Your task to perform on an android device: refresh tabs in the chrome app Image 0: 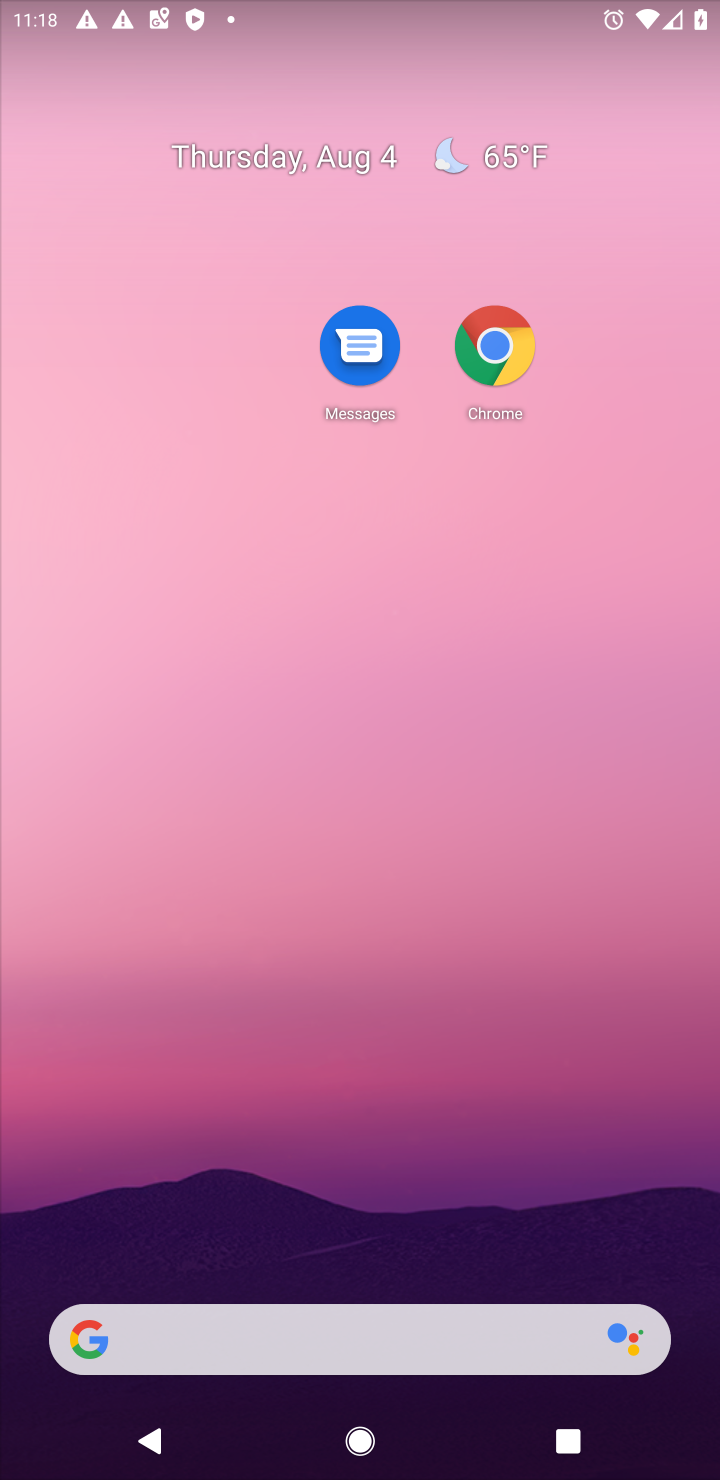
Step 0: drag from (294, 893) to (311, 265)
Your task to perform on an android device: refresh tabs in the chrome app Image 1: 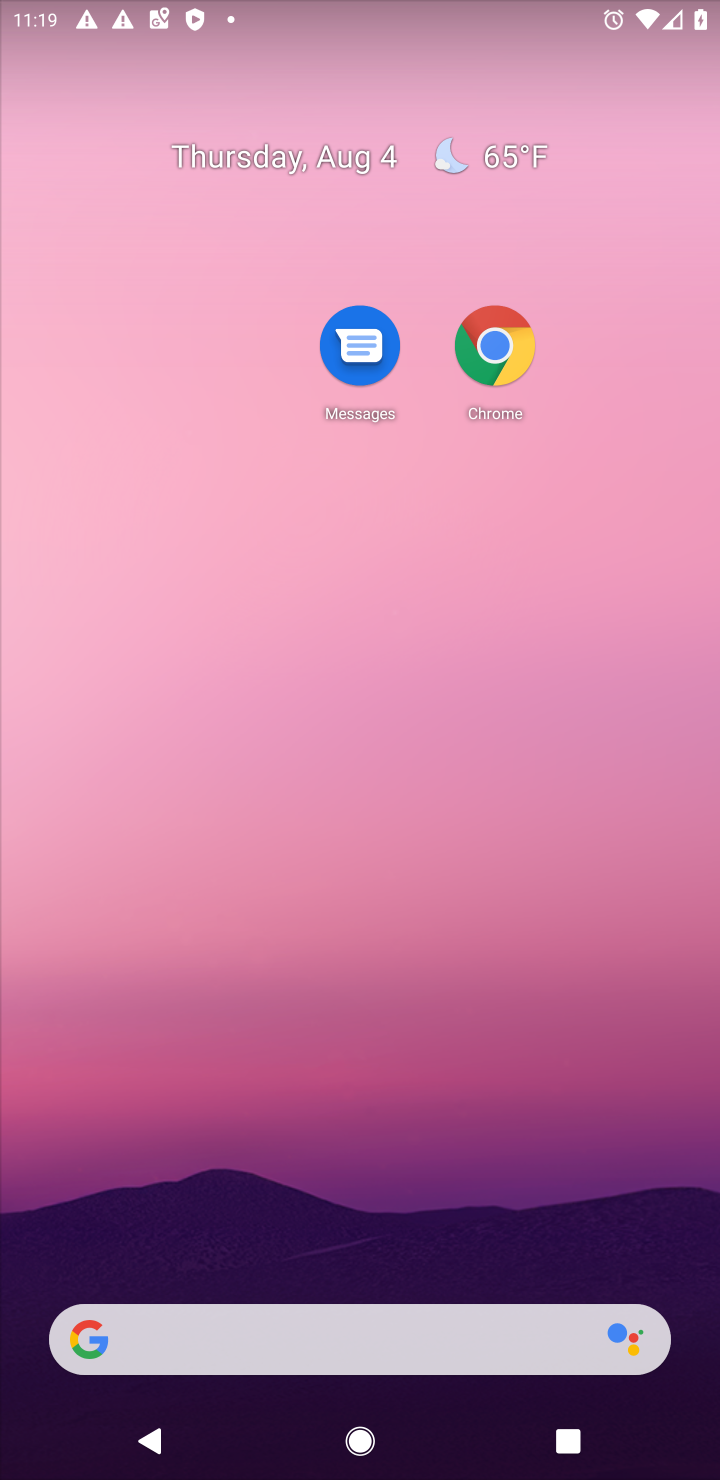
Step 1: drag from (405, 1052) to (361, 40)
Your task to perform on an android device: refresh tabs in the chrome app Image 2: 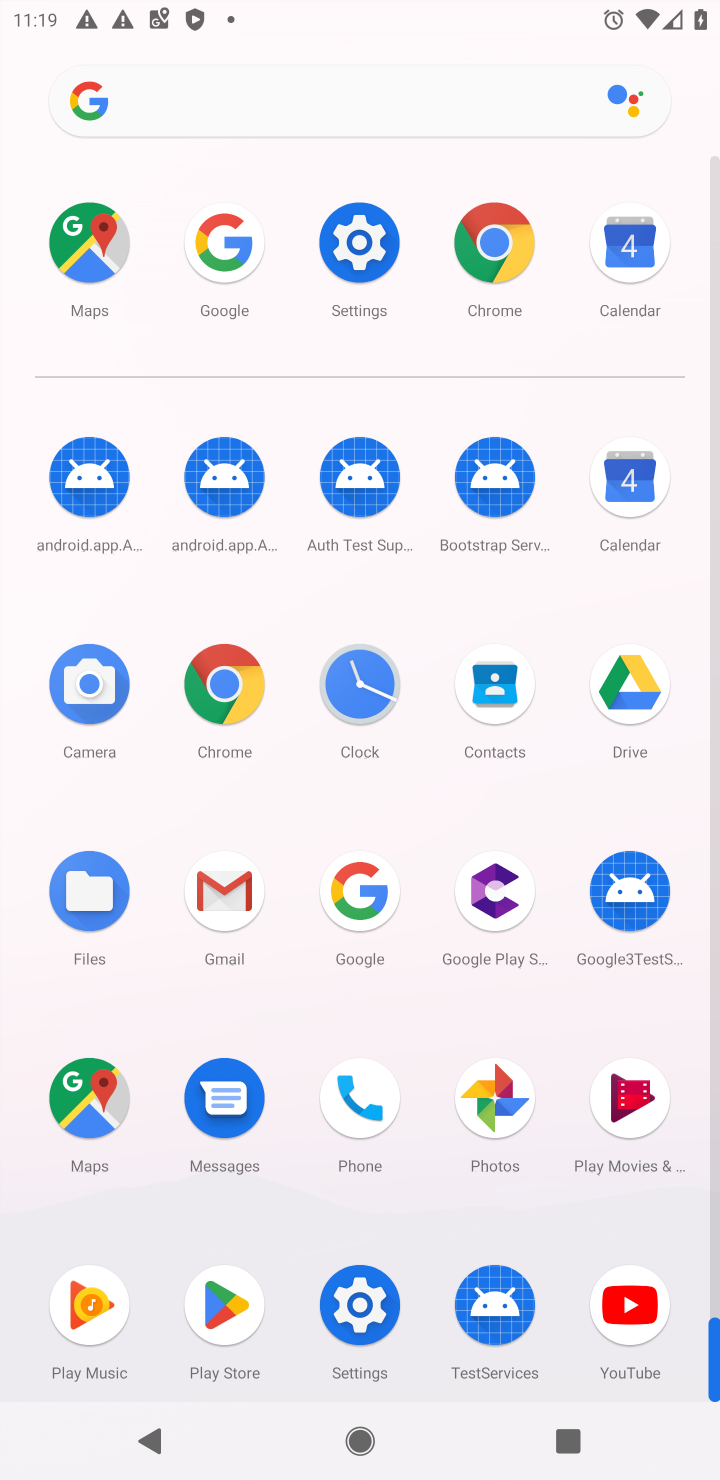
Step 2: click (480, 268)
Your task to perform on an android device: refresh tabs in the chrome app Image 3: 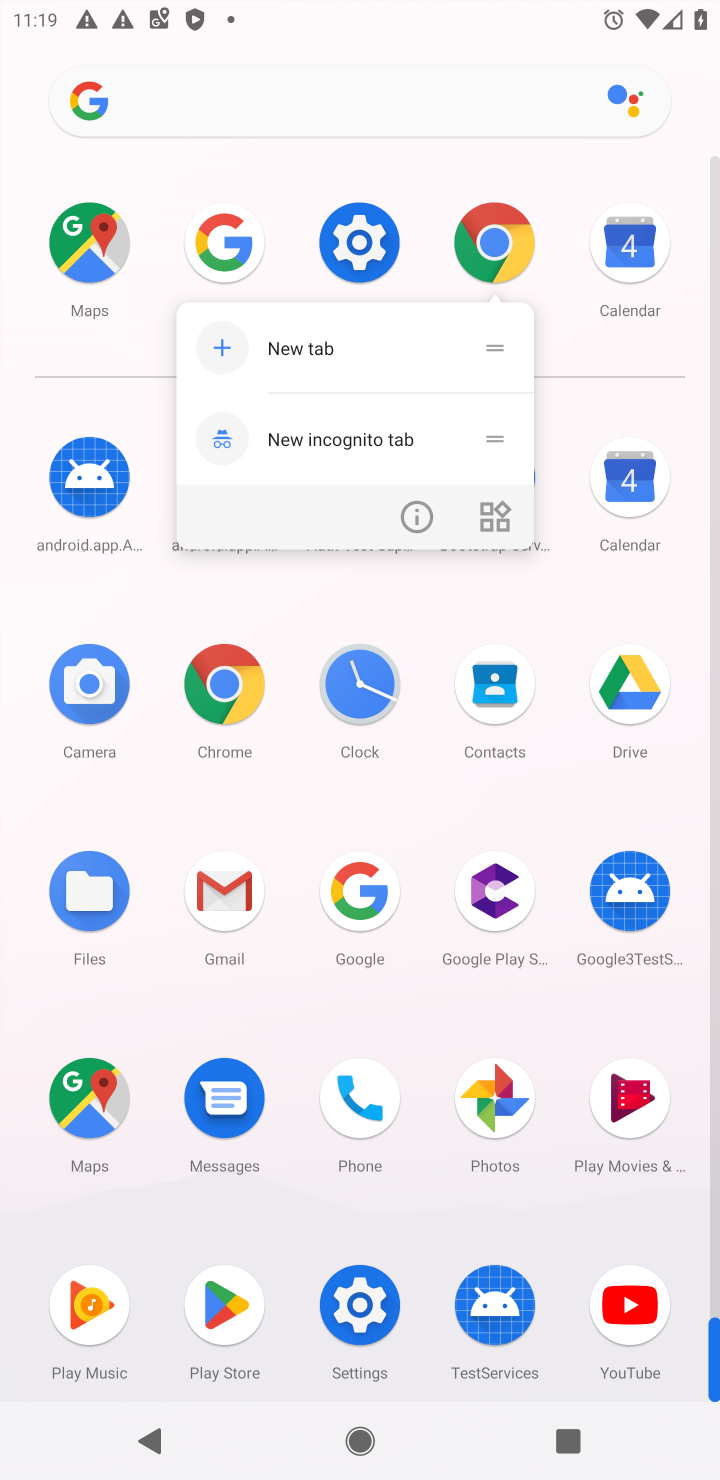
Step 3: click (491, 242)
Your task to perform on an android device: refresh tabs in the chrome app Image 4: 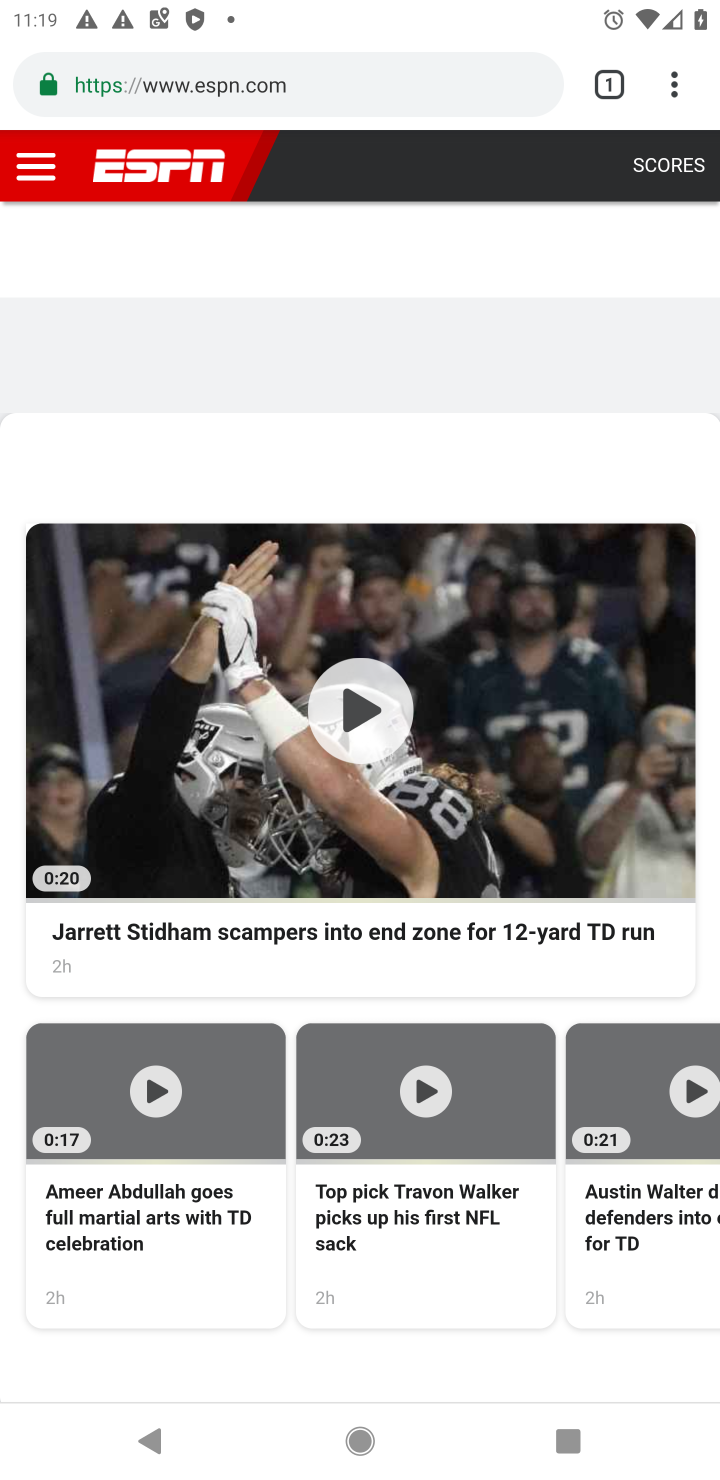
Step 4: click (668, 94)
Your task to perform on an android device: refresh tabs in the chrome app Image 5: 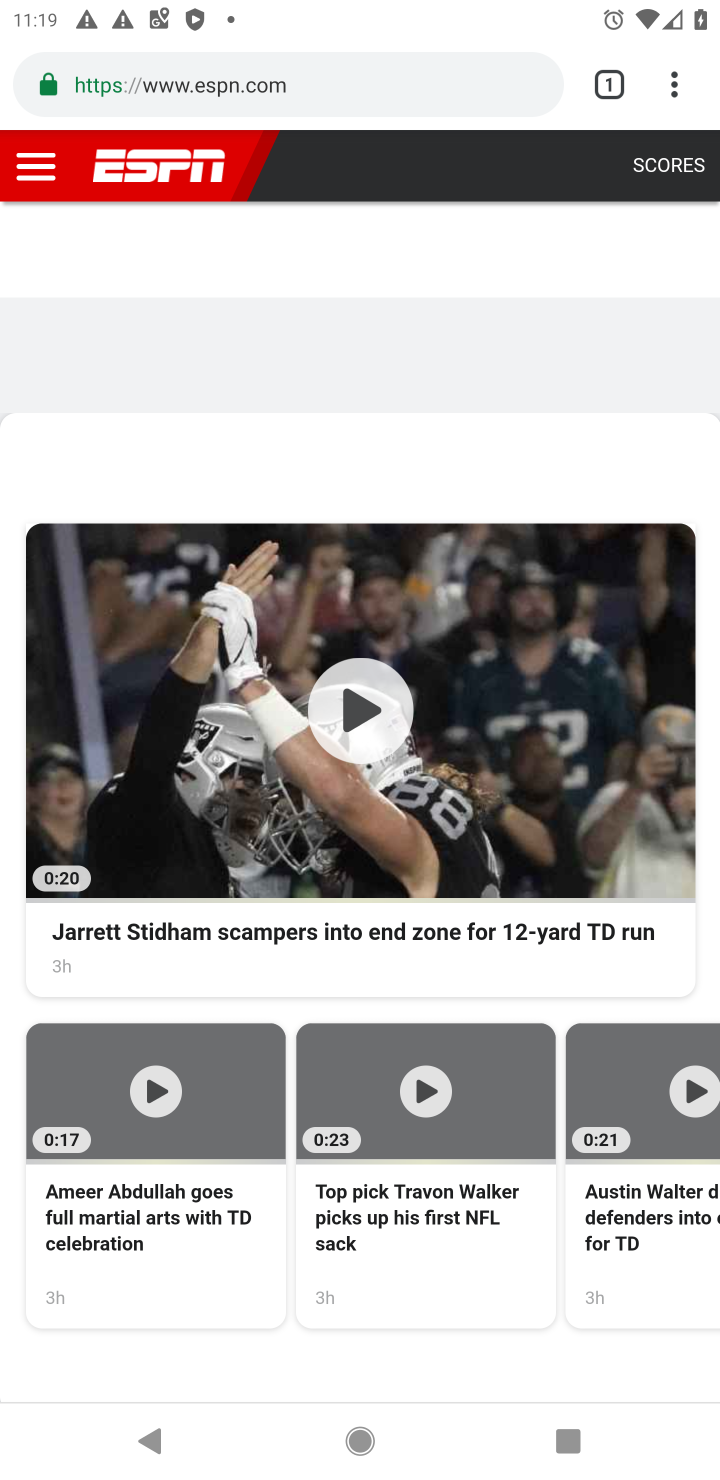
Step 5: task complete